Your task to perform on an android device: Go to battery settings Image 0: 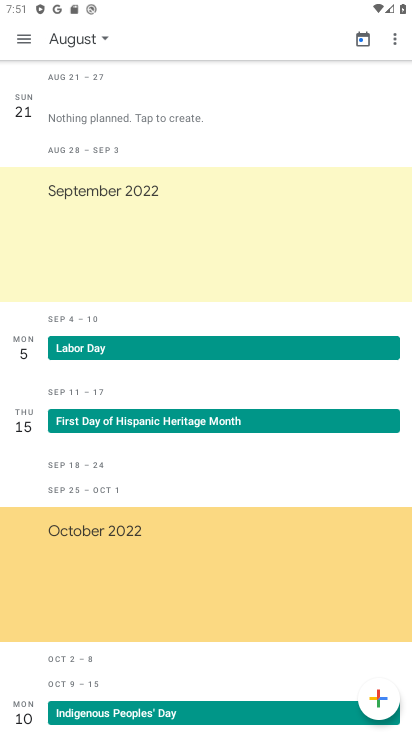
Step 0: press home button
Your task to perform on an android device: Go to battery settings Image 1: 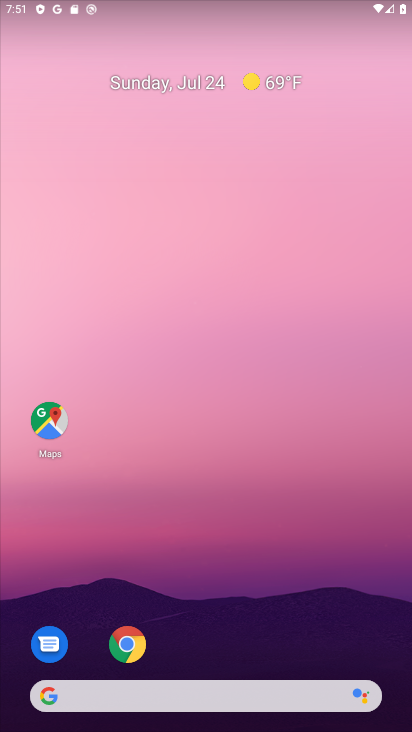
Step 1: drag from (202, 682) to (201, 353)
Your task to perform on an android device: Go to battery settings Image 2: 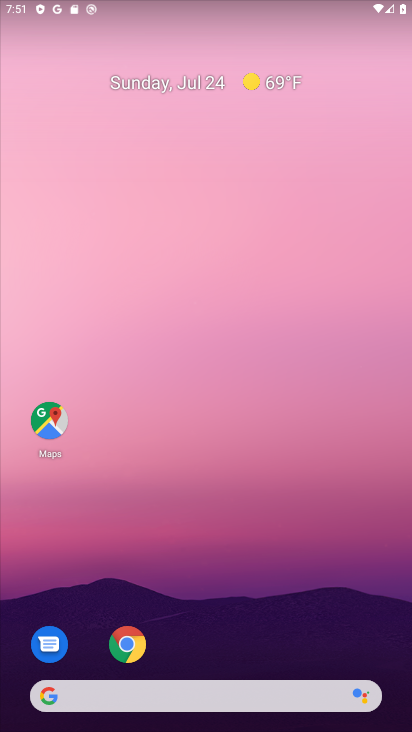
Step 2: drag from (211, 659) to (168, 248)
Your task to perform on an android device: Go to battery settings Image 3: 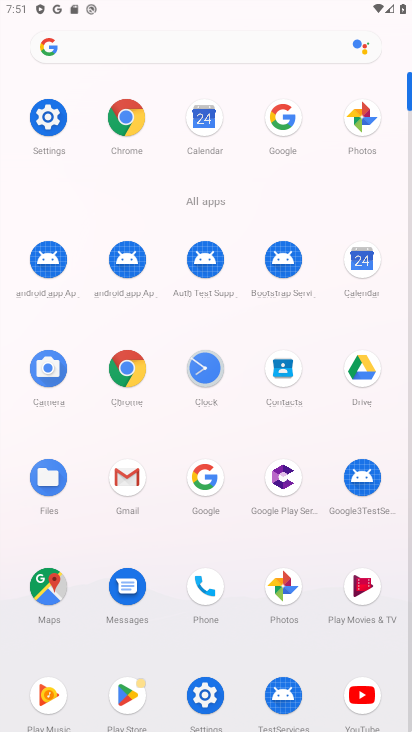
Step 3: click (196, 685)
Your task to perform on an android device: Go to battery settings Image 4: 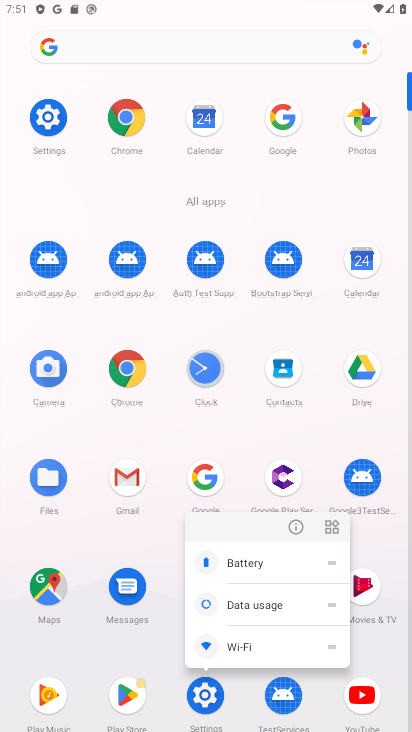
Step 4: click (194, 703)
Your task to perform on an android device: Go to battery settings Image 5: 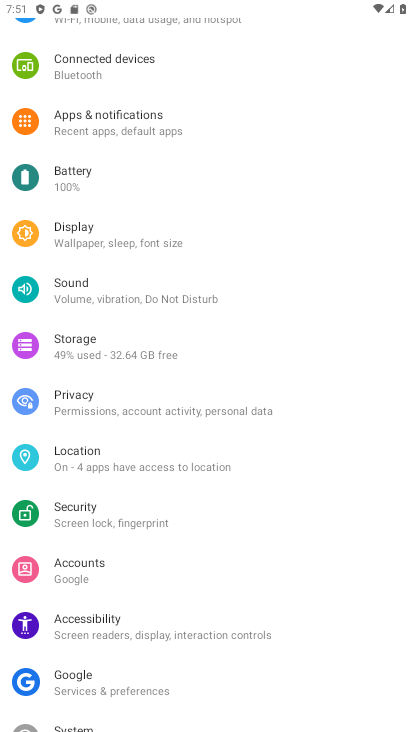
Step 5: task complete